Your task to perform on an android device: open app "Contacts" (install if not already installed) Image 0: 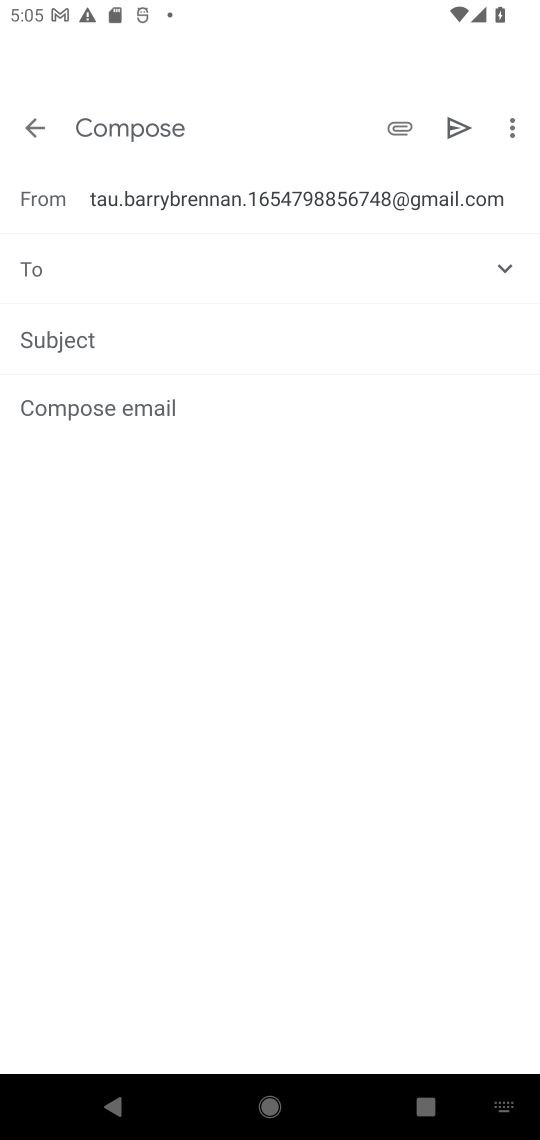
Step 0: press home button
Your task to perform on an android device: open app "Contacts" (install if not already installed) Image 1: 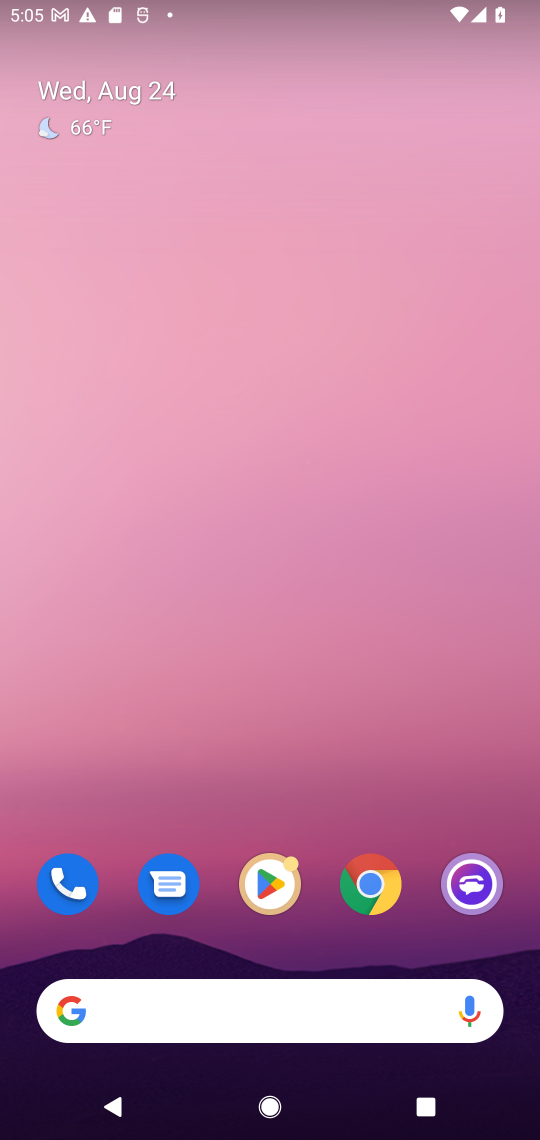
Step 1: click (263, 880)
Your task to perform on an android device: open app "Contacts" (install if not already installed) Image 2: 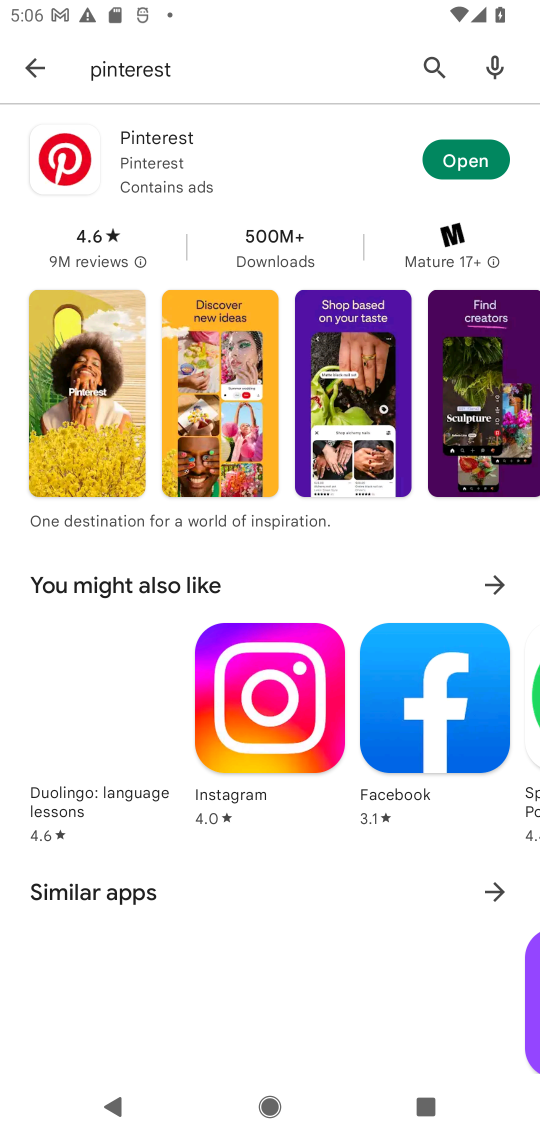
Step 2: click (26, 57)
Your task to perform on an android device: open app "Contacts" (install if not already installed) Image 3: 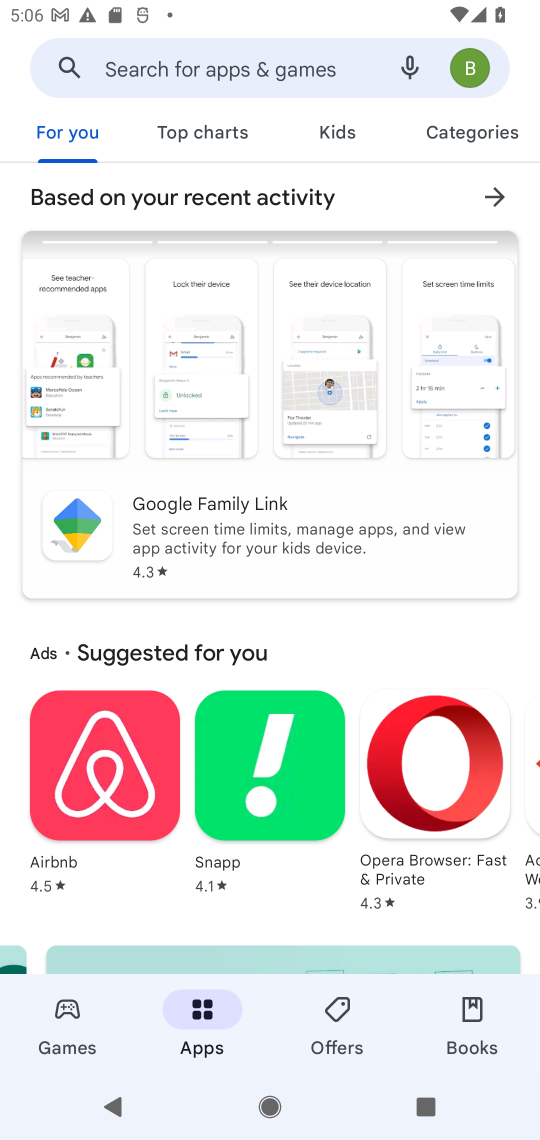
Step 3: click (26, 57)
Your task to perform on an android device: open app "Contacts" (install if not already installed) Image 4: 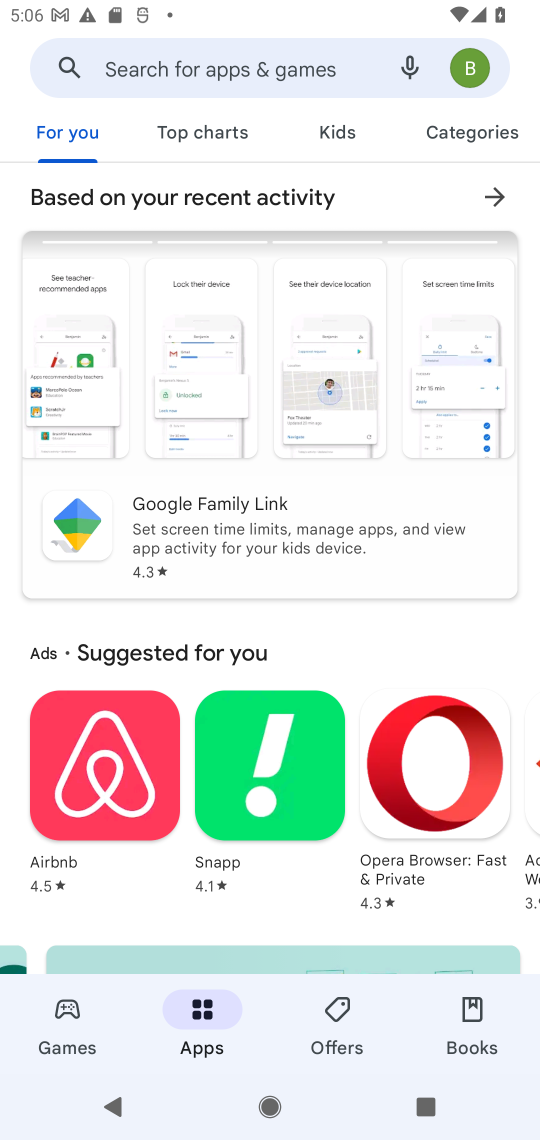
Step 4: click (205, 69)
Your task to perform on an android device: open app "Contacts" (install if not already installed) Image 5: 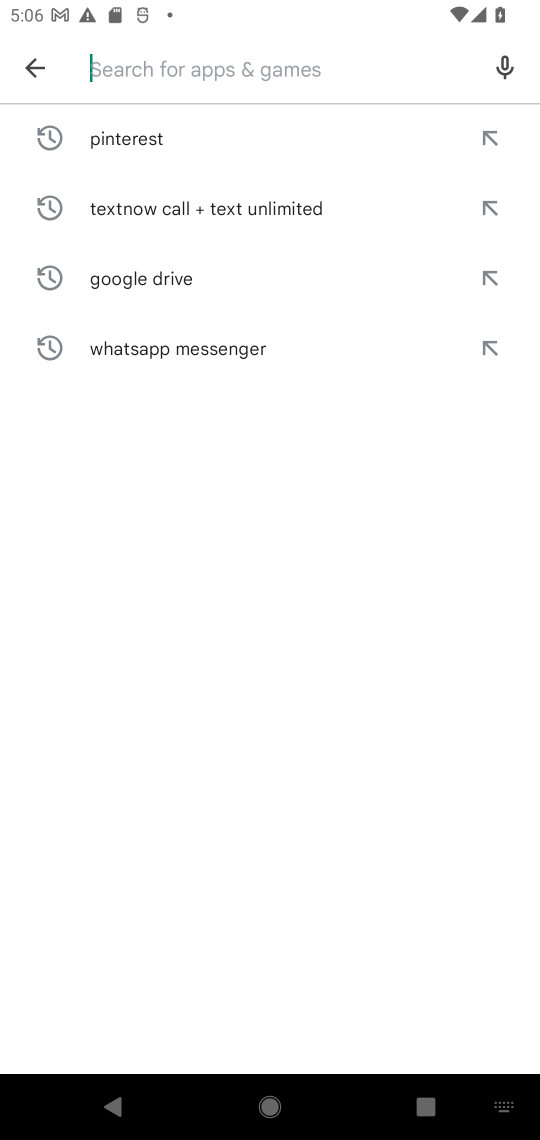
Step 5: type "Contacts"
Your task to perform on an android device: open app "Contacts" (install if not already installed) Image 6: 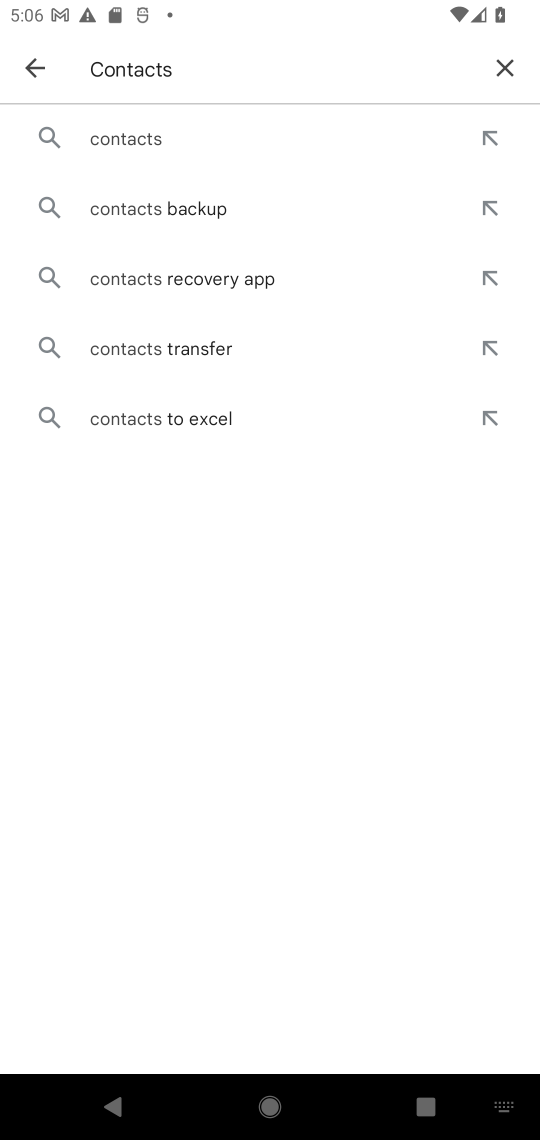
Step 6: click (110, 127)
Your task to perform on an android device: open app "Contacts" (install if not already installed) Image 7: 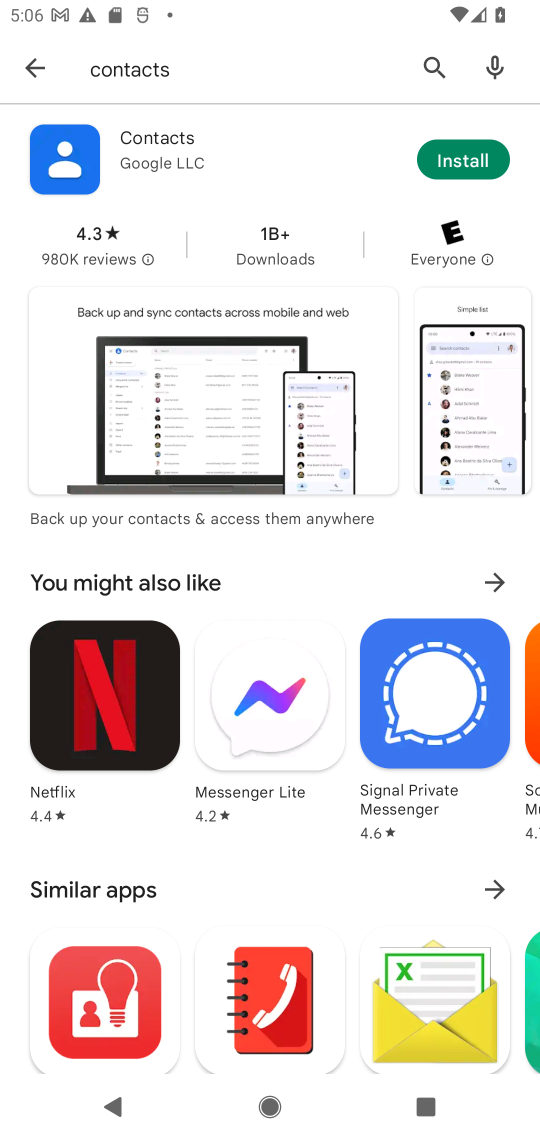
Step 7: click (457, 156)
Your task to perform on an android device: open app "Contacts" (install if not already installed) Image 8: 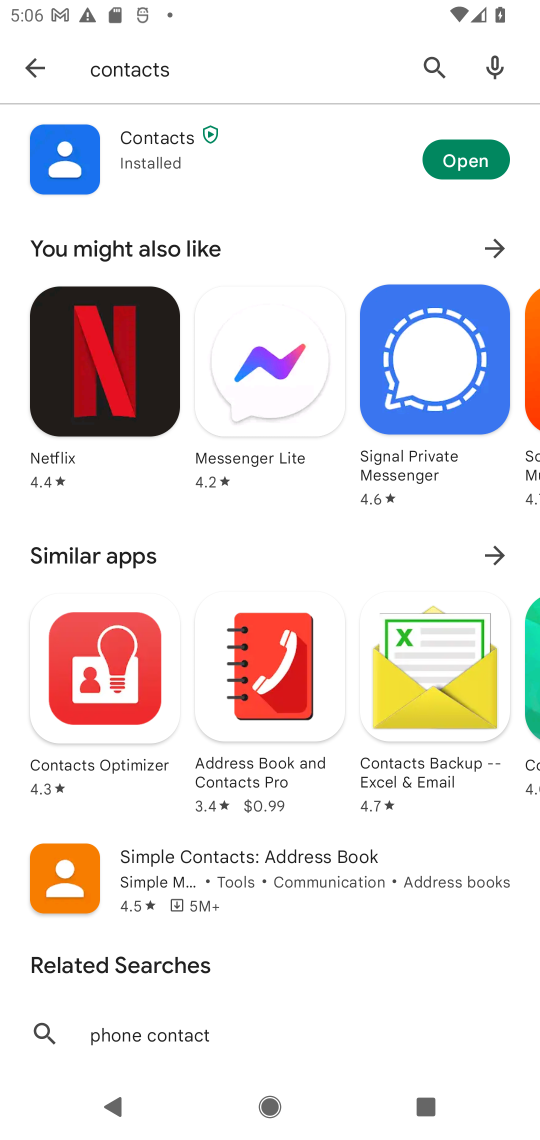
Step 8: click (452, 163)
Your task to perform on an android device: open app "Contacts" (install if not already installed) Image 9: 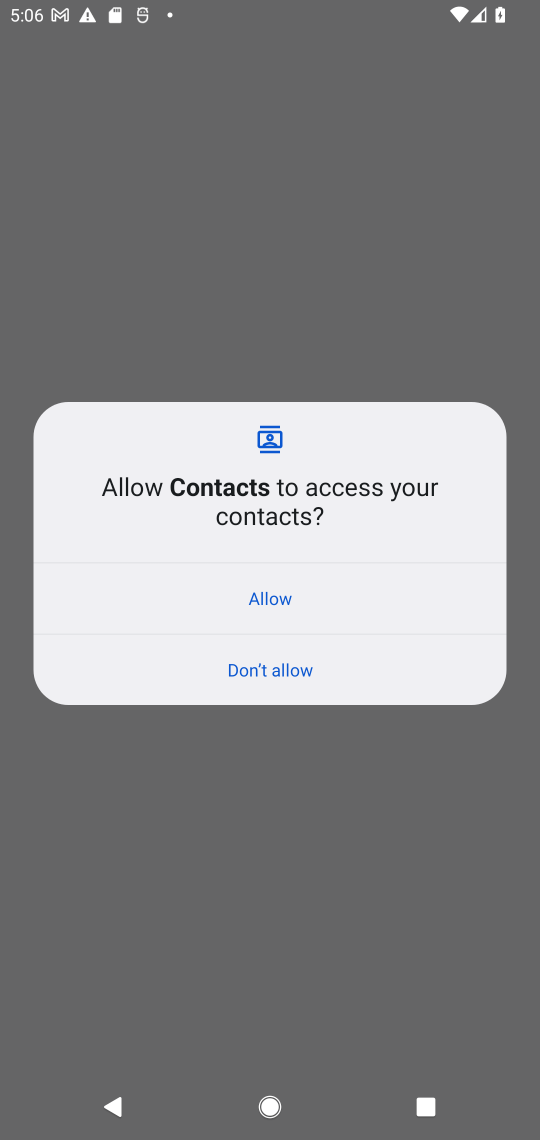
Step 9: click (293, 576)
Your task to perform on an android device: open app "Contacts" (install if not already installed) Image 10: 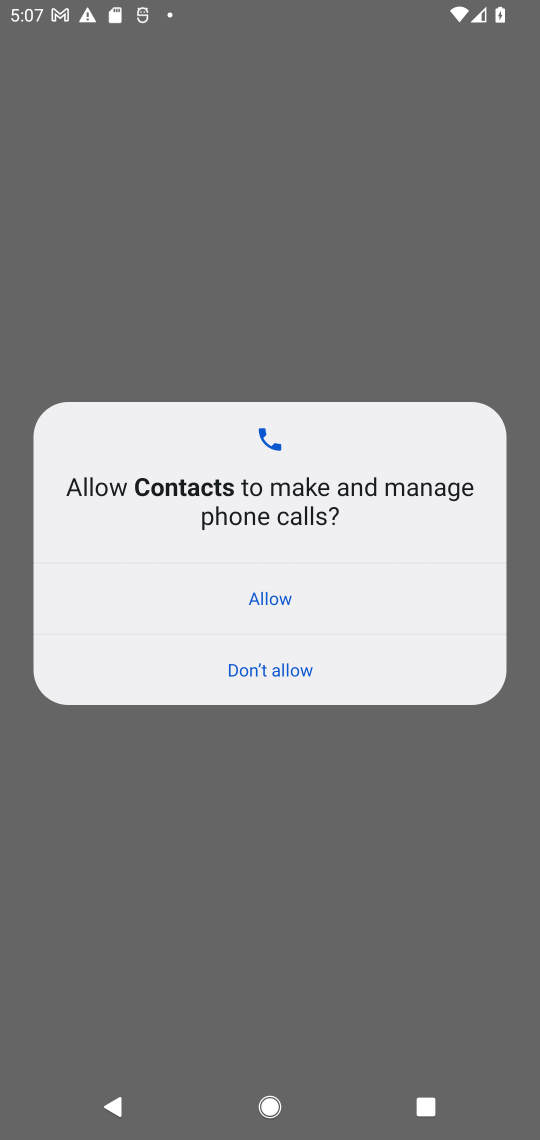
Step 10: click (277, 582)
Your task to perform on an android device: open app "Contacts" (install if not already installed) Image 11: 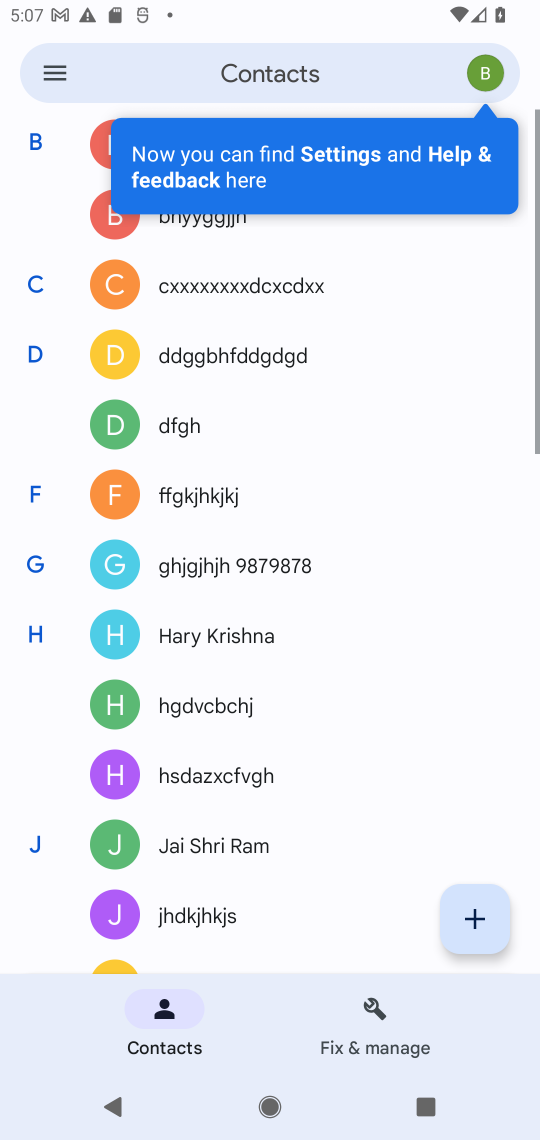
Step 11: task complete